Your task to perform on an android device: toggle translation in the chrome app Image 0: 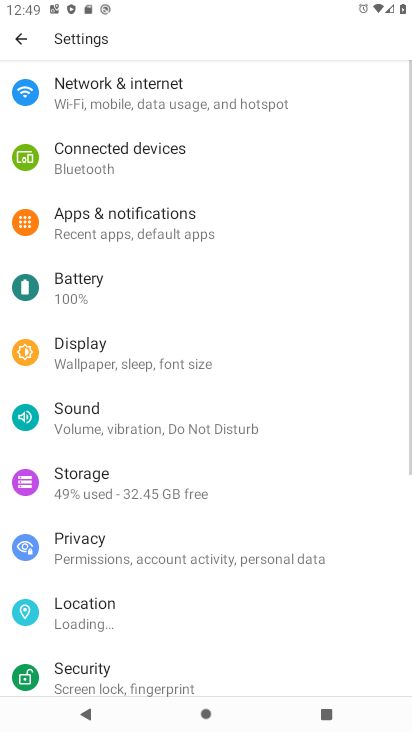
Step 0: press home button
Your task to perform on an android device: toggle translation in the chrome app Image 1: 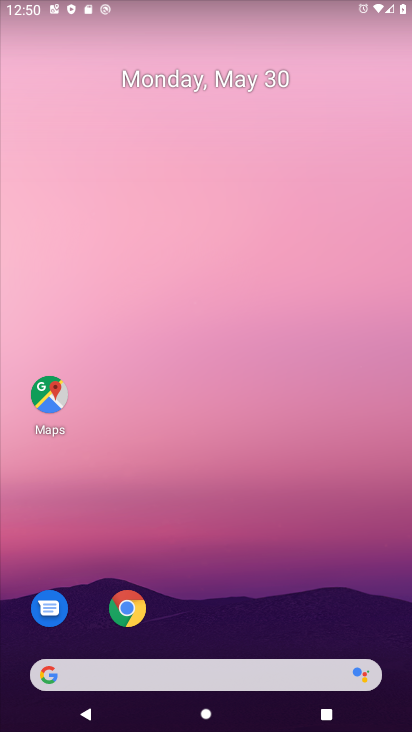
Step 1: drag from (207, 571) to (178, 78)
Your task to perform on an android device: toggle translation in the chrome app Image 2: 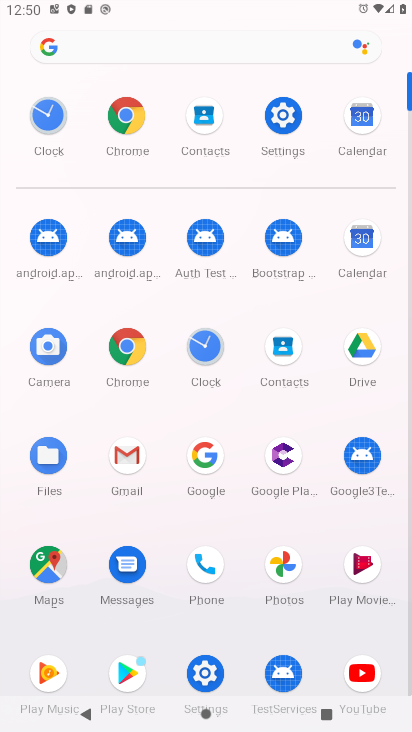
Step 2: click (122, 343)
Your task to perform on an android device: toggle translation in the chrome app Image 3: 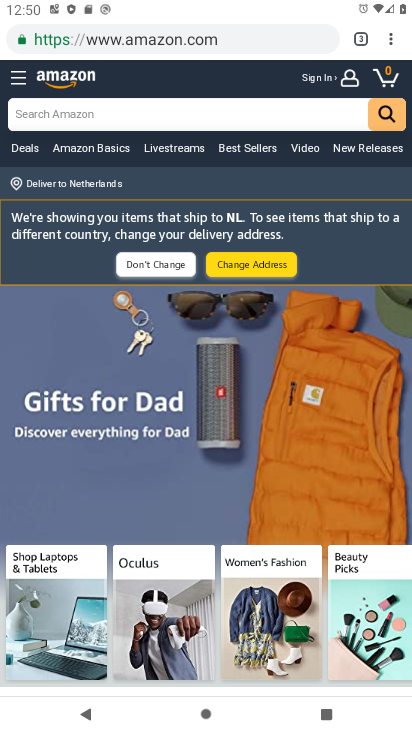
Step 3: click (389, 36)
Your task to perform on an android device: toggle translation in the chrome app Image 4: 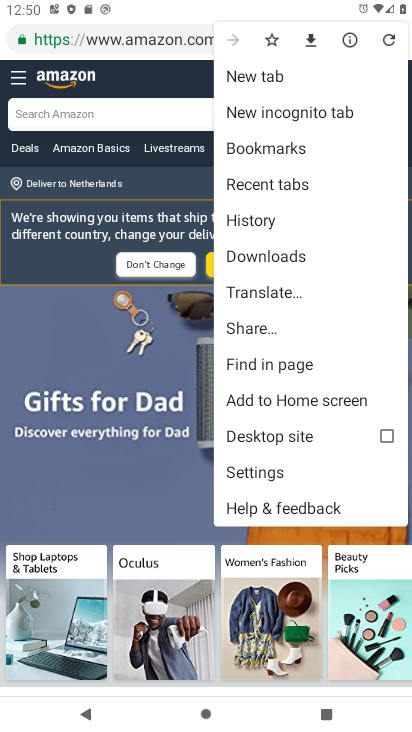
Step 4: click (254, 279)
Your task to perform on an android device: toggle translation in the chrome app Image 5: 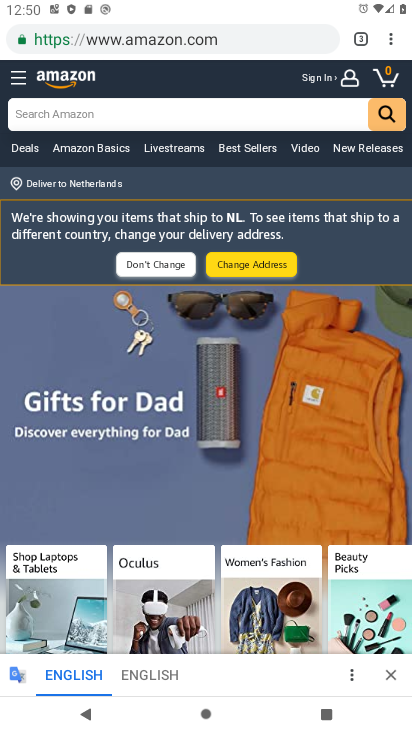
Step 5: click (386, 38)
Your task to perform on an android device: toggle translation in the chrome app Image 6: 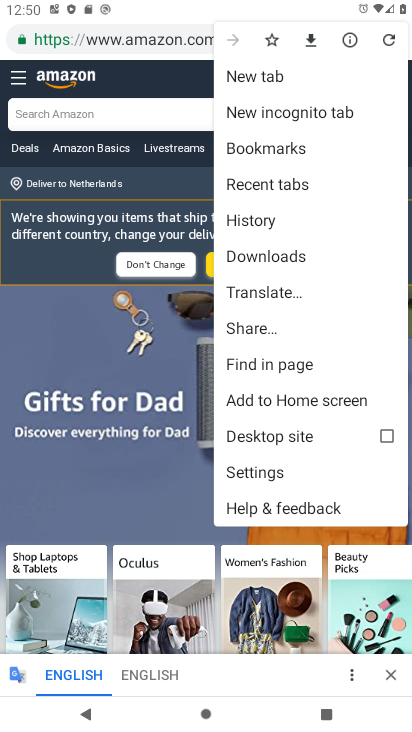
Step 6: click (254, 285)
Your task to perform on an android device: toggle translation in the chrome app Image 7: 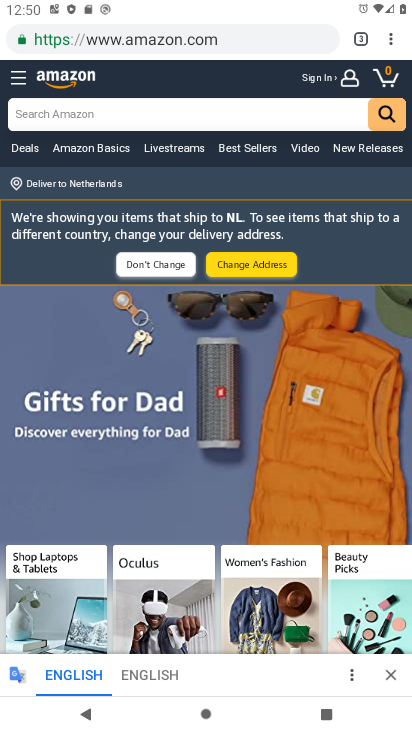
Step 7: click (133, 669)
Your task to perform on an android device: toggle translation in the chrome app Image 8: 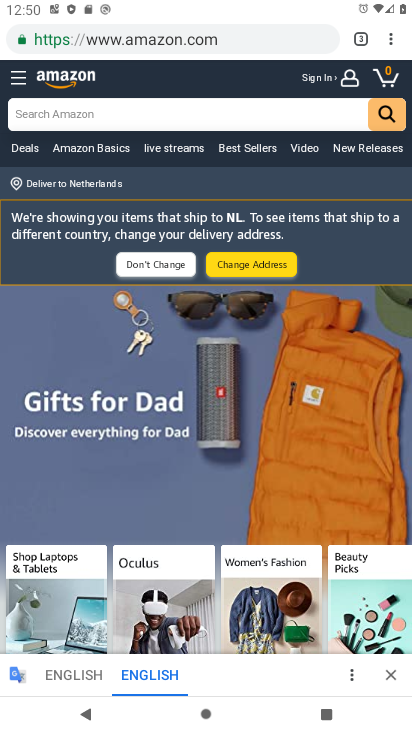
Step 8: task complete